Your task to perform on an android device: open chrome privacy settings Image 0: 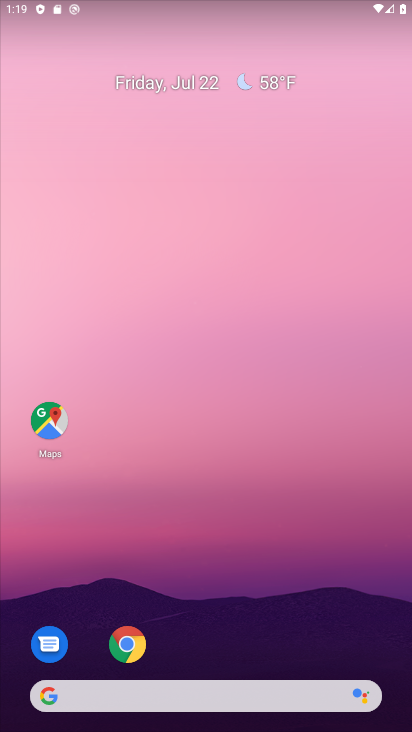
Step 0: drag from (194, 685) to (251, 153)
Your task to perform on an android device: open chrome privacy settings Image 1: 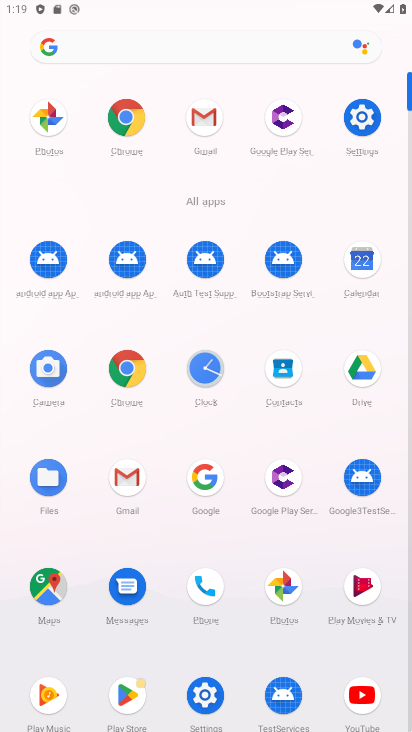
Step 1: click (351, 128)
Your task to perform on an android device: open chrome privacy settings Image 2: 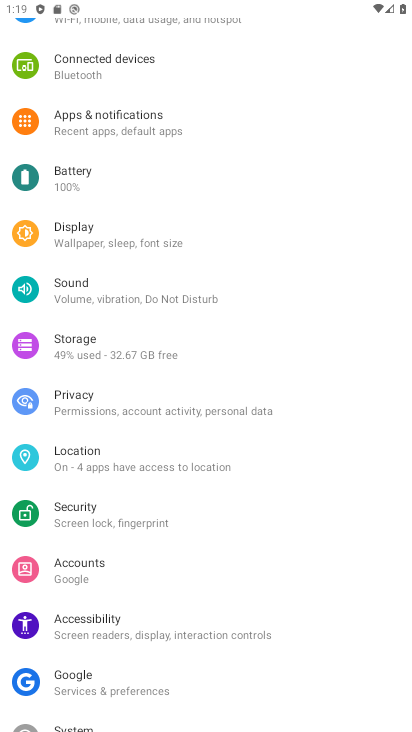
Step 2: click (98, 401)
Your task to perform on an android device: open chrome privacy settings Image 3: 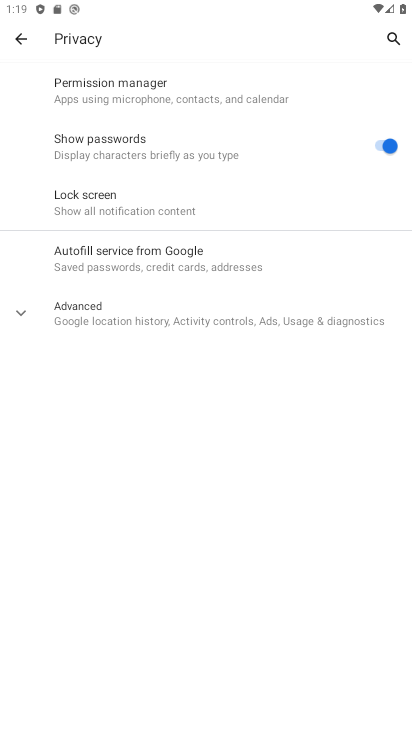
Step 3: click (87, 319)
Your task to perform on an android device: open chrome privacy settings Image 4: 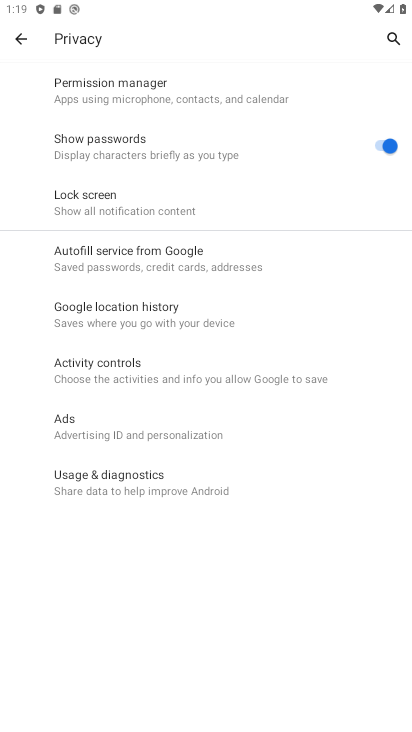
Step 4: task complete